Your task to perform on an android device: Search for 3d printer on AliExpress Image 0: 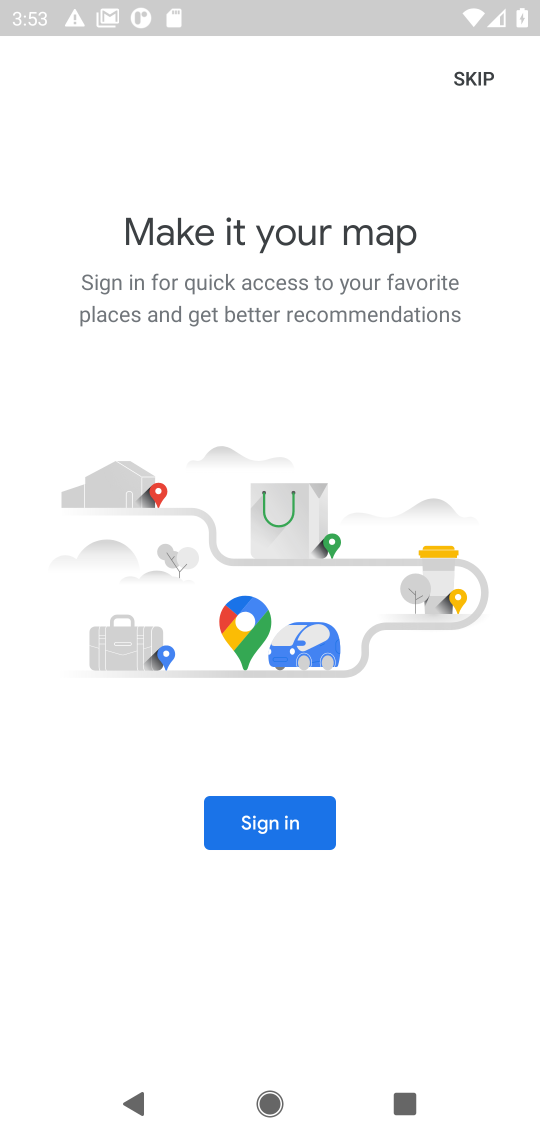
Step 0: press home button
Your task to perform on an android device: Search for 3d printer on AliExpress Image 1: 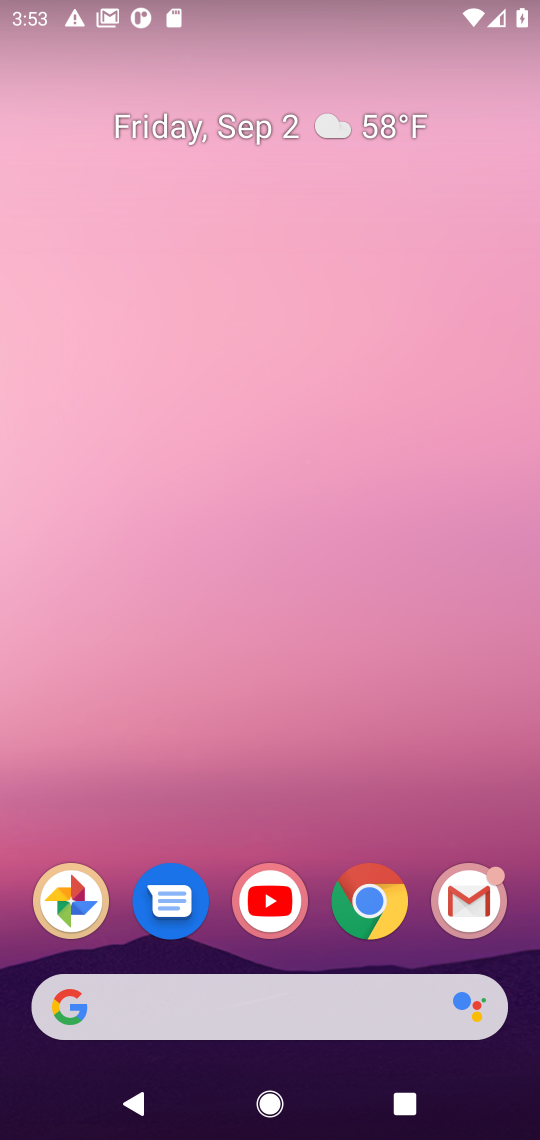
Step 1: drag from (325, 796) to (451, 106)
Your task to perform on an android device: Search for 3d printer on AliExpress Image 2: 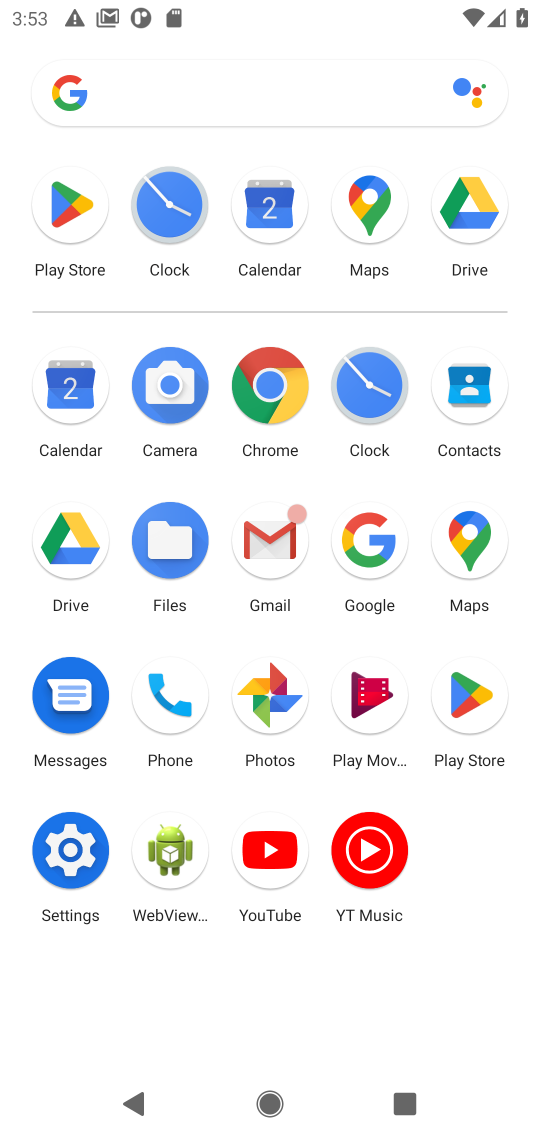
Step 2: click (272, 375)
Your task to perform on an android device: Search for 3d printer on AliExpress Image 3: 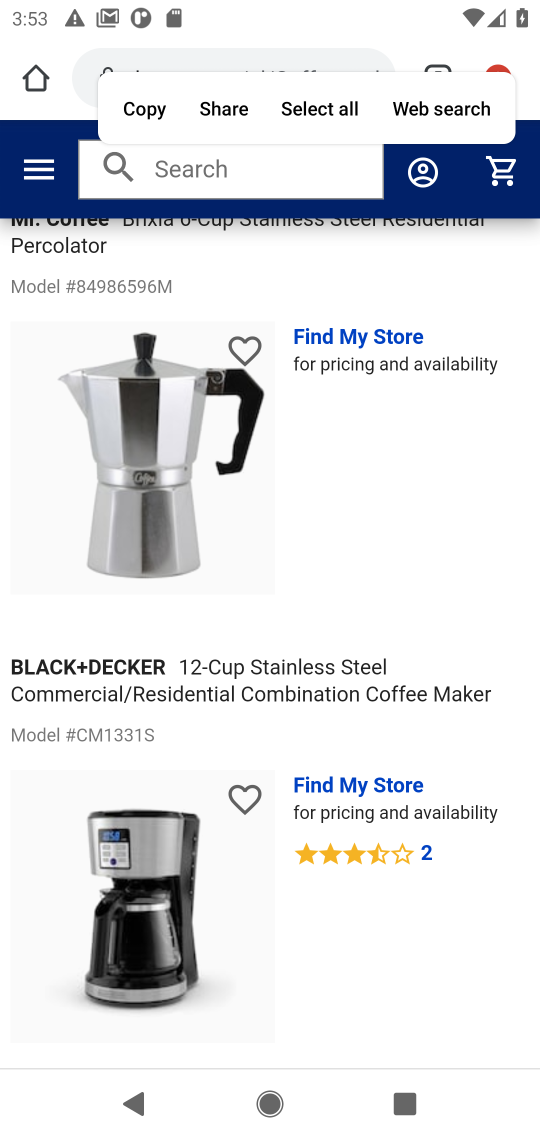
Step 3: click (205, 61)
Your task to perform on an android device: Search for 3d printer on AliExpress Image 4: 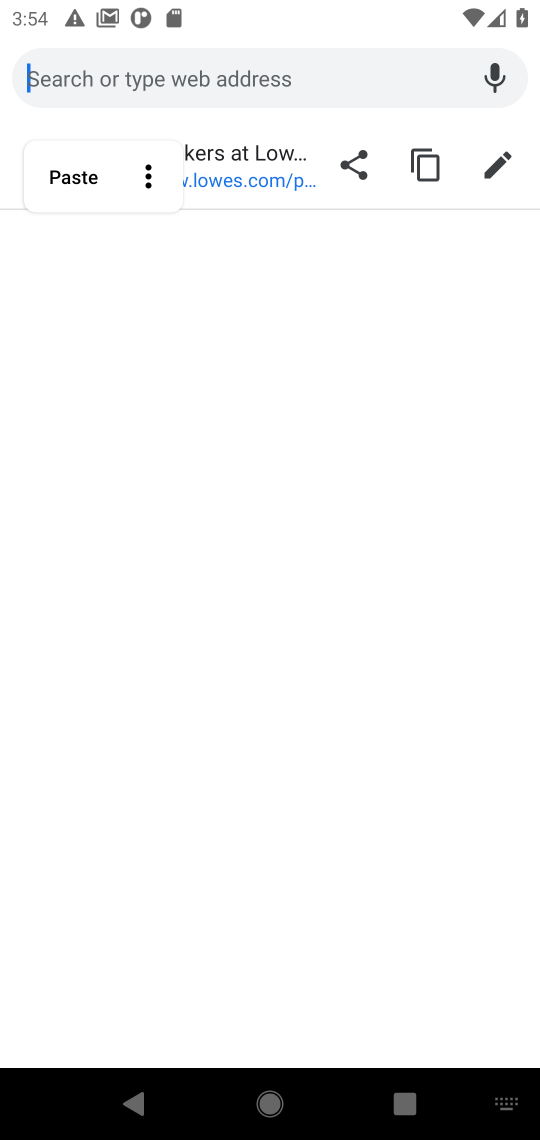
Step 4: type "3d printer on AliExpress"
Your task to perform on an android device: Search for 3d printer on AliExpress Image 5: 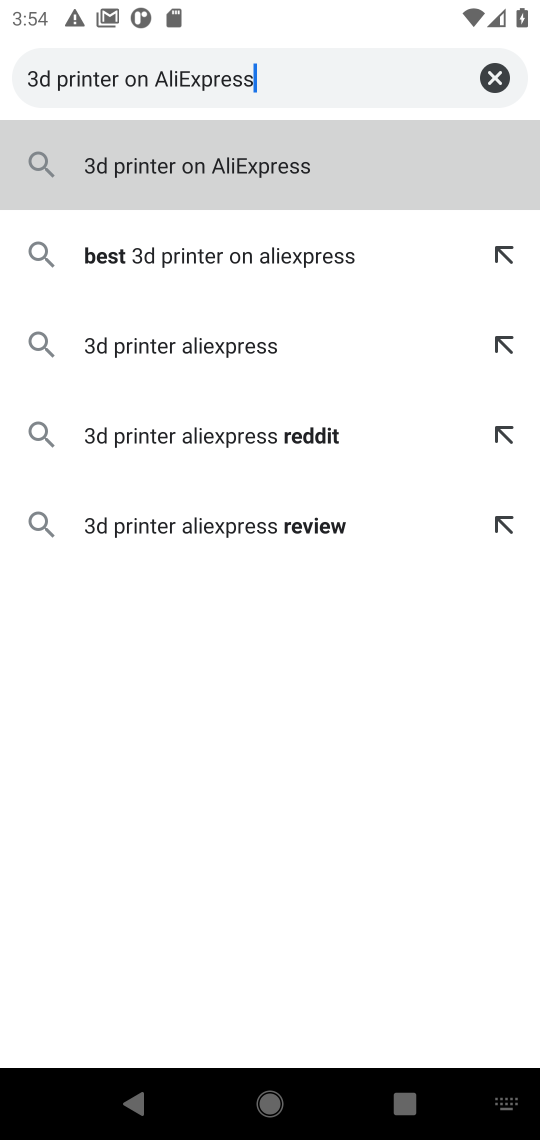
Step 5: press enter
Your task to perform on an android device: Search for 3d printer on AliExpress Image 6: 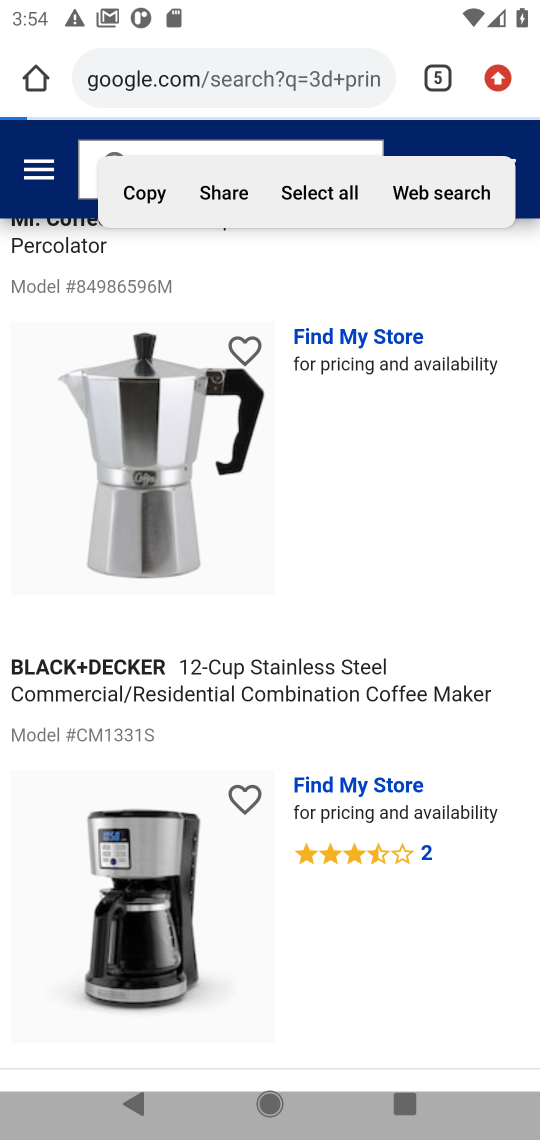
Step 6: press enter
Your task to perform on an android device: Search for 3d printer on AliExpress Image 7: 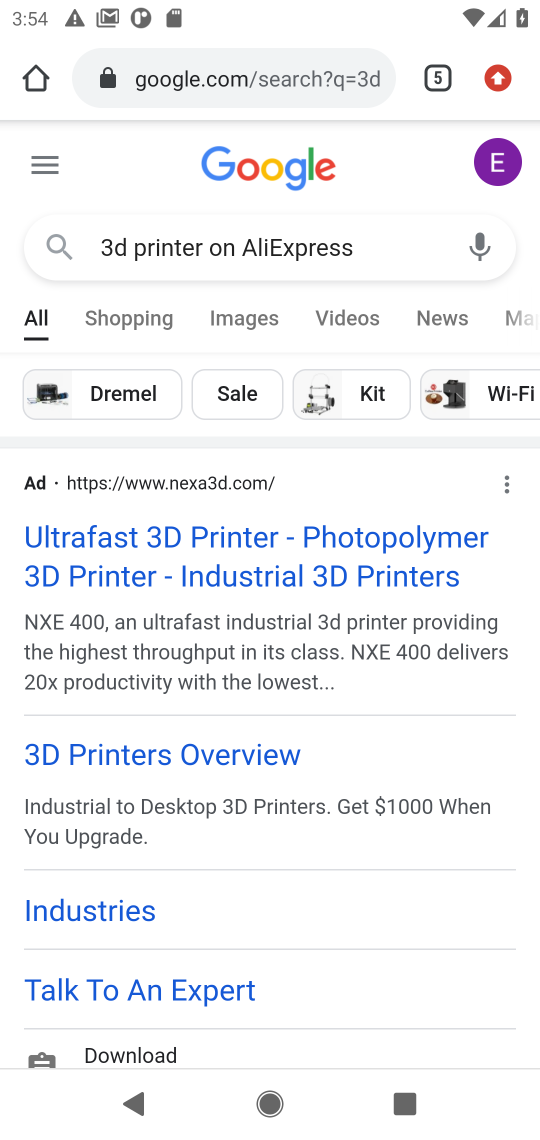
Step 7: drag from (324, 898) to (457, 116)
Your task to perform on an android device: Search for 3d printer on AliExpress Image 8: 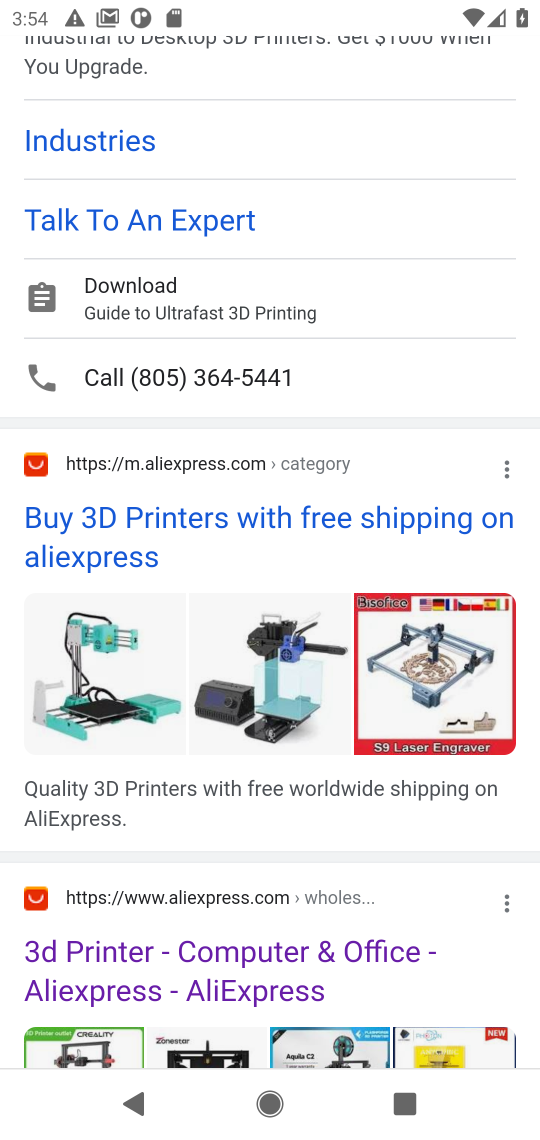
Step 8: click (250, 515)
Your task to perform on an android device: Search for 3d printer on AliExpress Image 9: 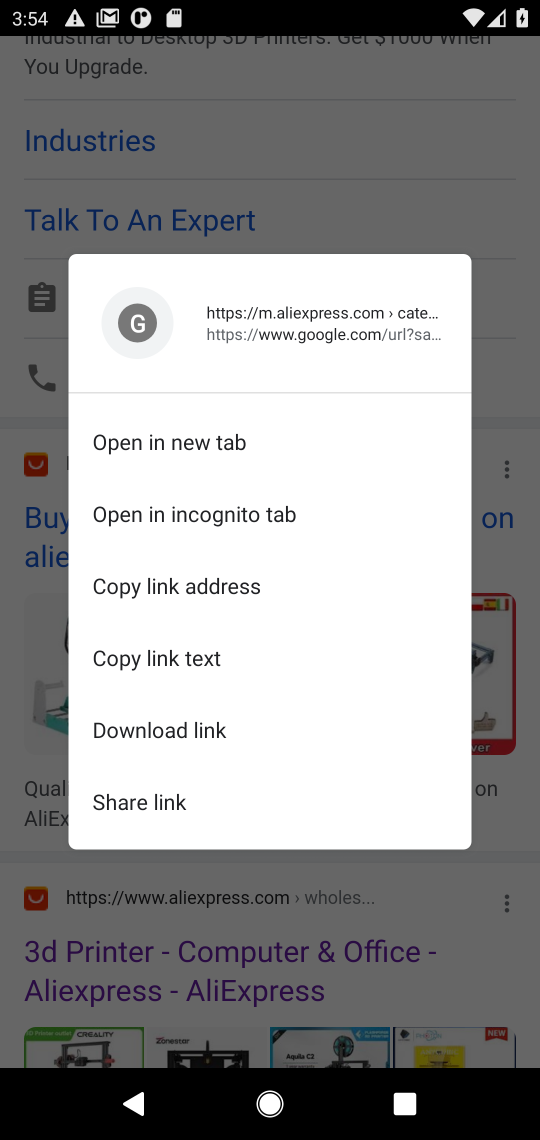
Step 9: click (447, 1029)
Your task to perform on an android device: Search for 3d printer on AliExpress Image 10: 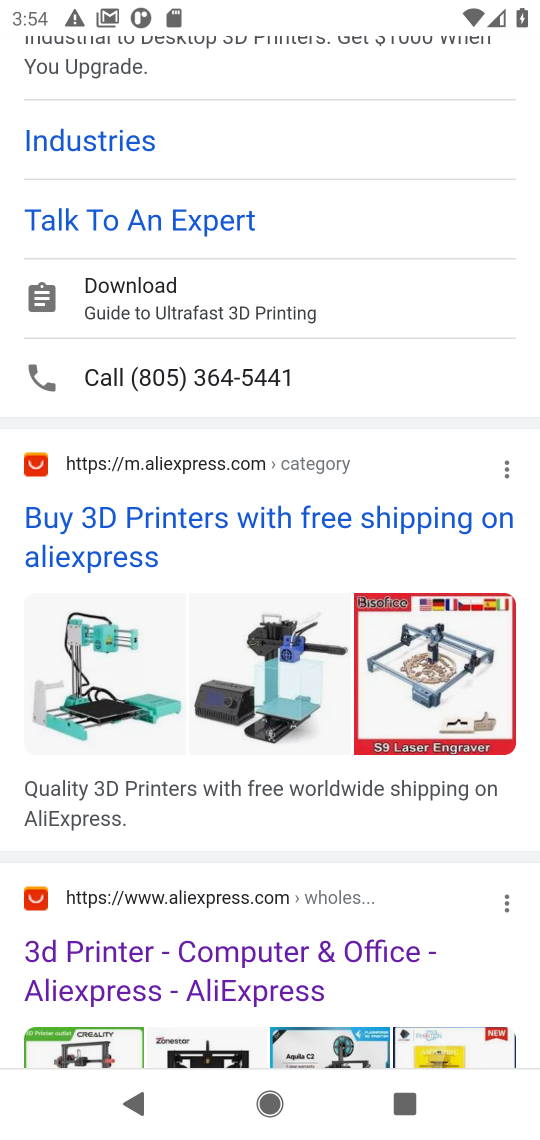
Step 10: click (260, 514)
Your task to perform on an android device: Search for 3d printer on AliExpress Image 11: 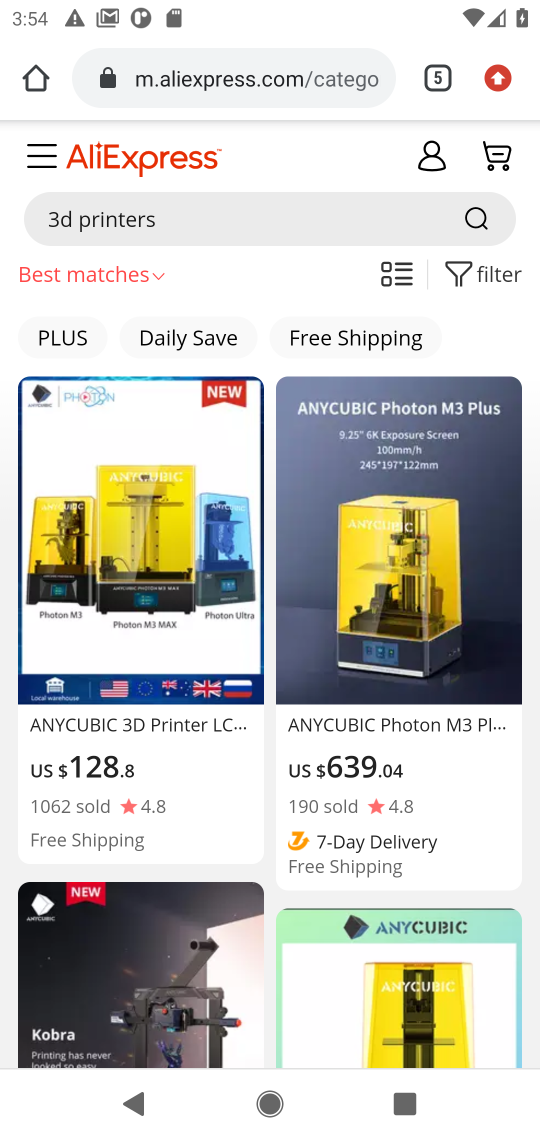
Step 11: task complete